Your task to perform on an android device: turn pop-ups on in chrome Image 0: 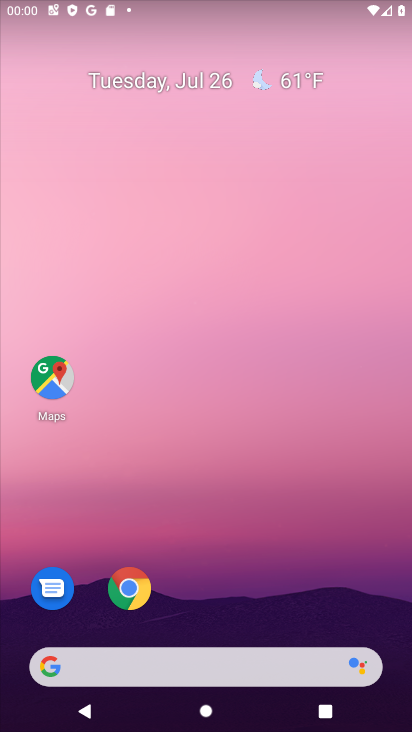
Step 0: press home button
Your task to perform on an android device: turn pop-ups on in chrome Image 1: 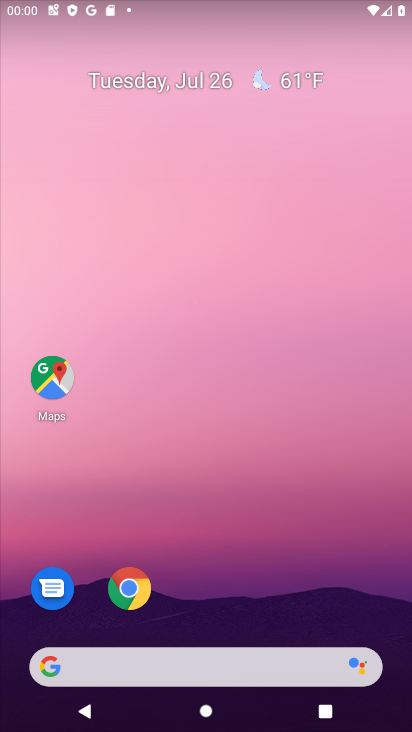
Step 1: click (124, 591)
Your task to perform on an android device: turn pop-ups on in chrome Image 2: 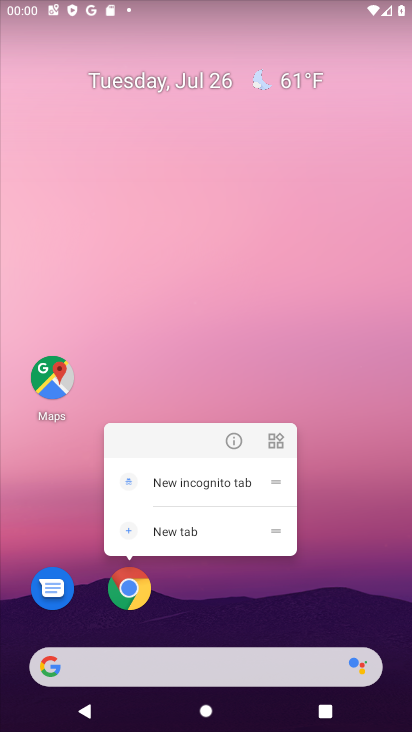
Step 2: click (133, 589)
Your task to perform on an android device: turn pop-ups on in chrome Image 3: 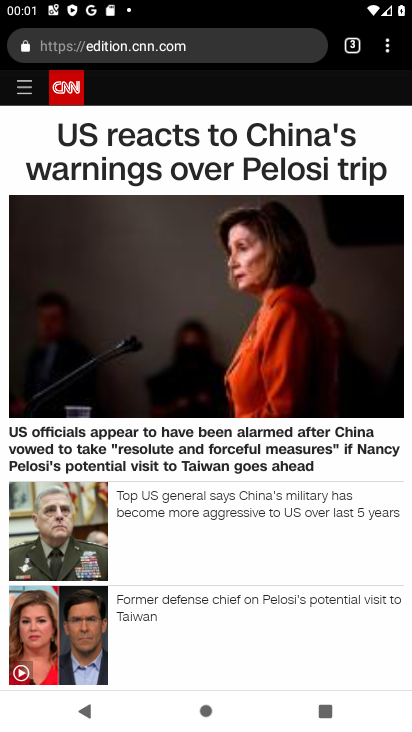
Step 3: click (393, 49)
Your task to perform on an android device: turn pop-ups on in chrome Image 4: 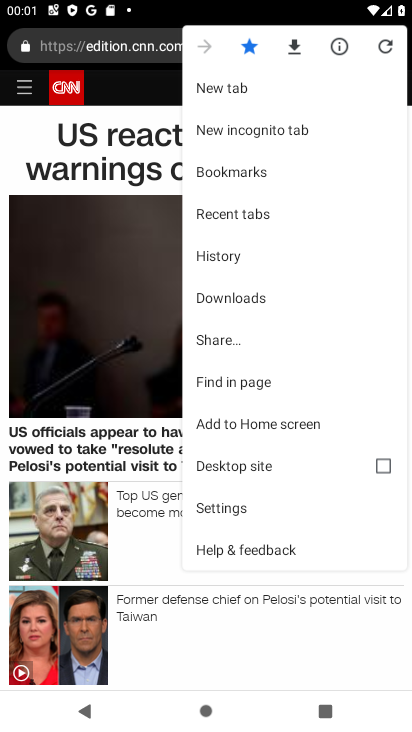
Step 4: click (256, 506)
Your task to perform on an android device: turn pop-ups on in chrome Image 5: 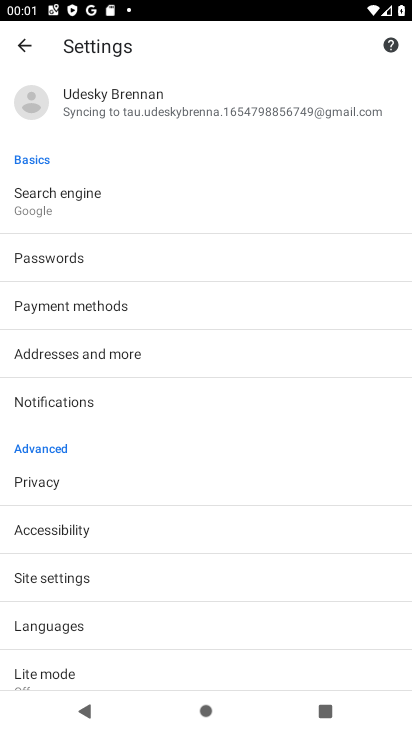
Step 5: drag from (139, 626) to (158, 156)
Your task to perform on an android device: turn pop-ups on in chrome Image 6: 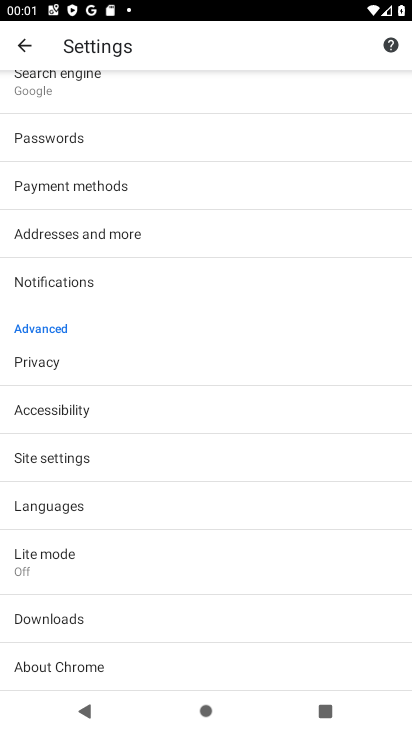
Step 6: click (108, 458)
Your task to perform on an android device: turn pop-ups on in chrome Image 7: 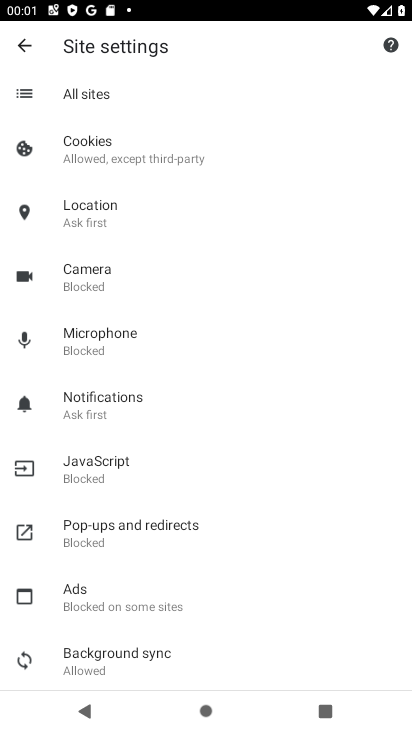
Step 7: click (110, 533)
Your task to perform on an android device: turn pop-ups on in chrome Image 8: 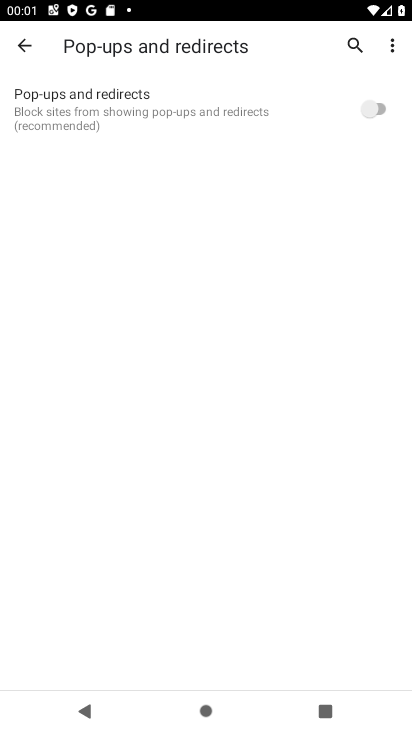
Step 8: click (376, 106)
Your task to perform on an android device: turn pop-ups on in chrome Image 9: 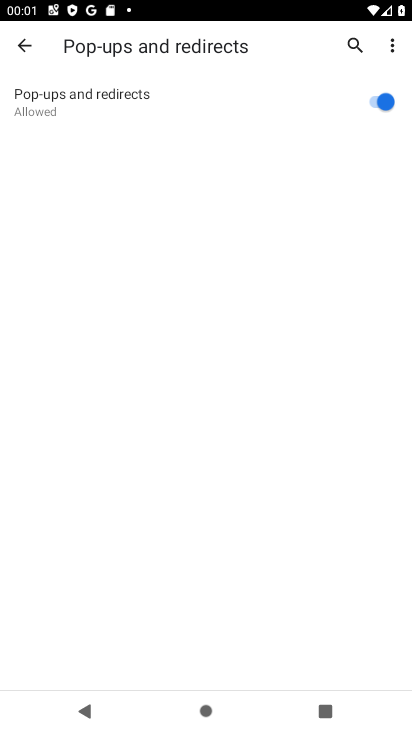
Step 9: task complete